Your task to perform on an android device: Go to Reddit.com Image 0: 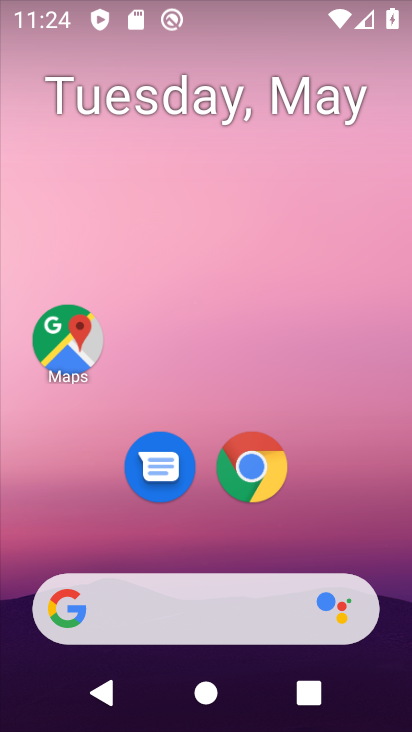
Step 0: click (240, 455)
Your task to perform on an android device: Go to Reddit.com Image 1: 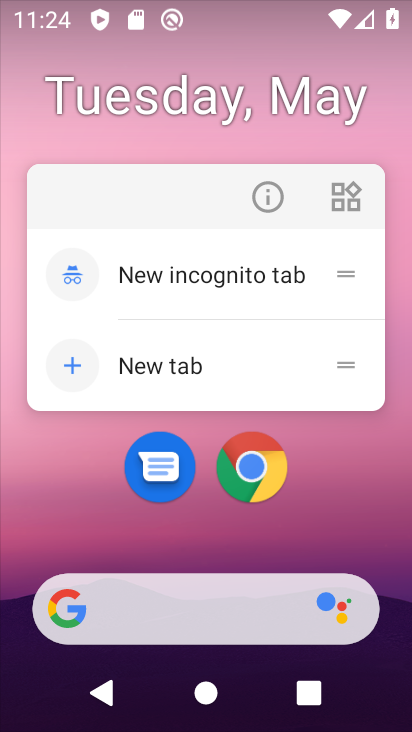
Step 1: click (255, 464)
Your task to perform on an android device: Go to Reddit.com Image 2: 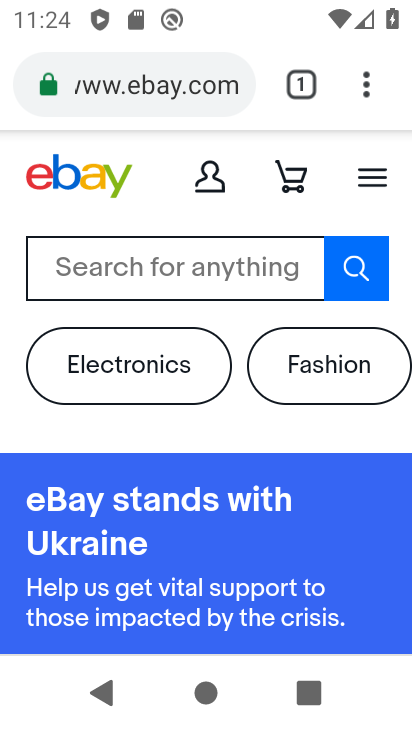
Step 2: click (358, 103)
Your task to perform on an android device: Go to Reddit.com Image 3: 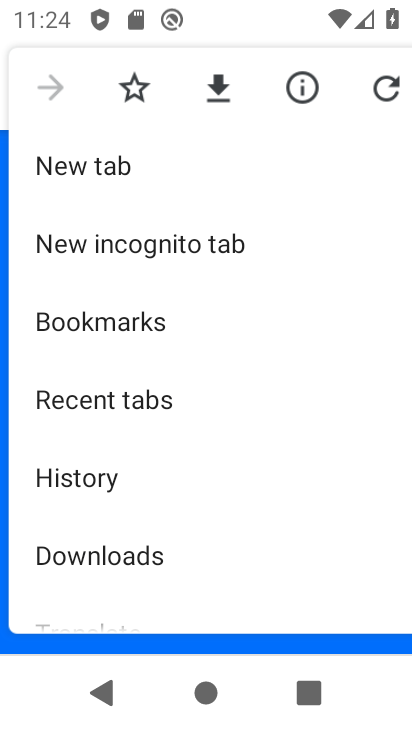
Step 3: click (390, 89)
Your task to perform on an android device: Go to Reddit.com Image 4: 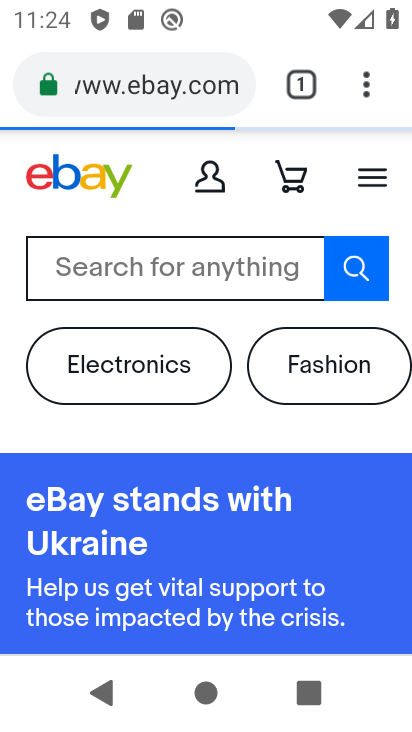
Step 4: task complete